Your task to perform on an android device: turn on priority inbox in the gmail app Image 0: 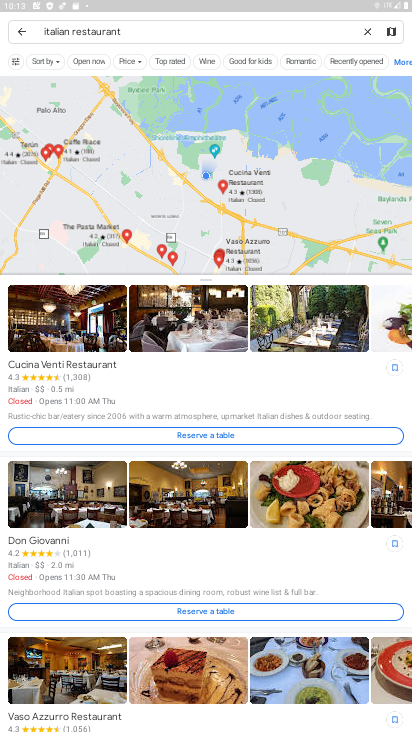
Step 0: press home button
Your task to perform on an android device: turn on priority inbox in the gmail app Image 1: 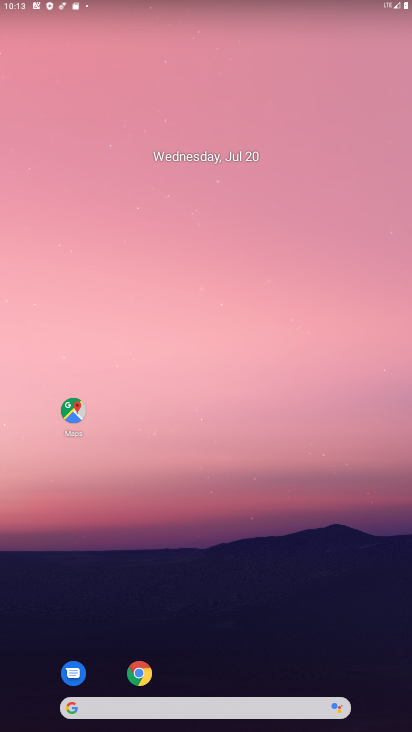
Step 1: drag from (216, 706) to (121, 354)
Your task to perform on an android device: turn on priority inbox in the gmail app Image 2: 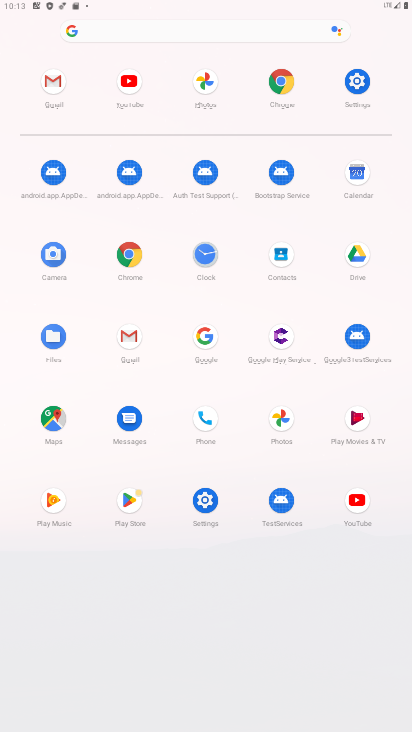
Step 2: click (132, 335)
Your task to perform on an android device: turn on priority inbox in the gmail app Image 3: 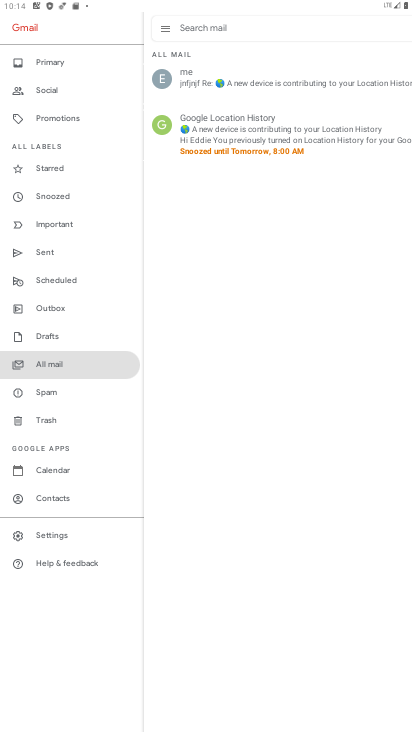
Step 3: click (52, 533)
Your task to perform on an android device: turn on priority inbox in the gmail app Image 4: 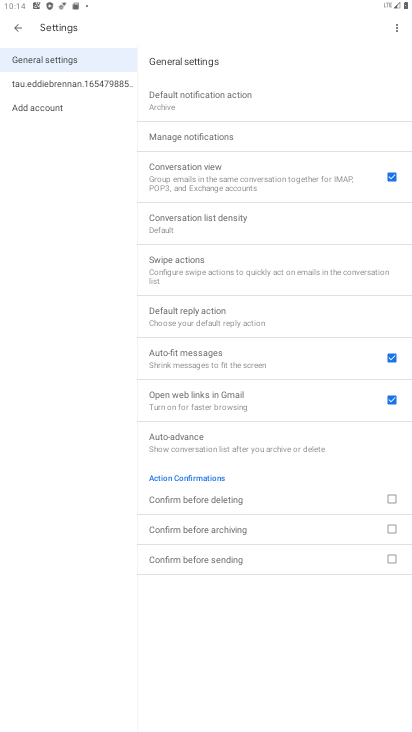
Step 4: click (95, 87)
Your task to perform on an android device: turn on priority inbox in the gmail app Image 5: 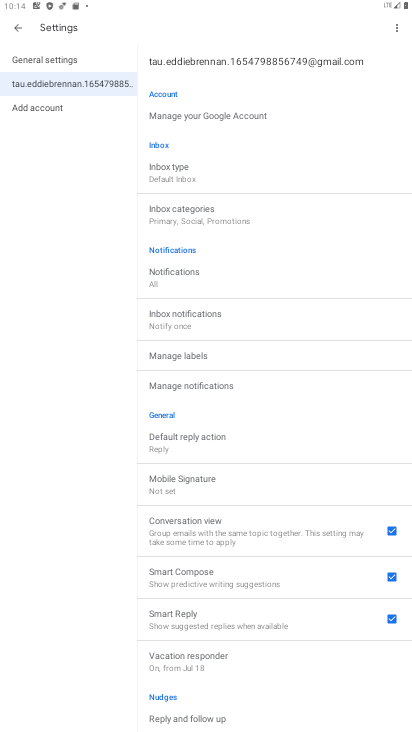
Step 5: click (175, 174)
Your task to perform on an android device: turn on priority inbox in the gmail app Image 6: 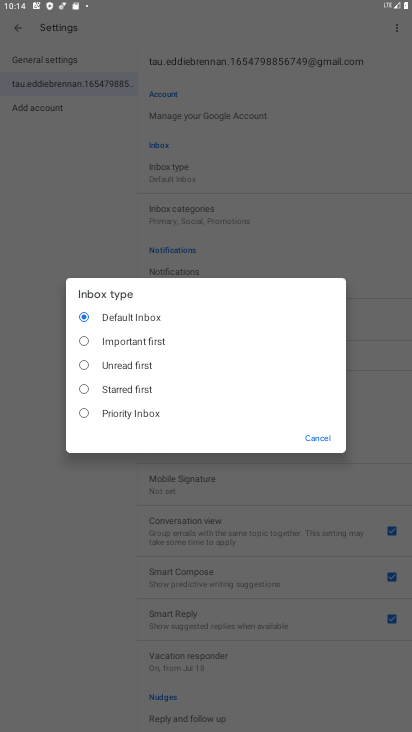
Step 6: click (84, 411)
Your task to perform on an android device: turn on priority inbox in the gmail app Image 7: 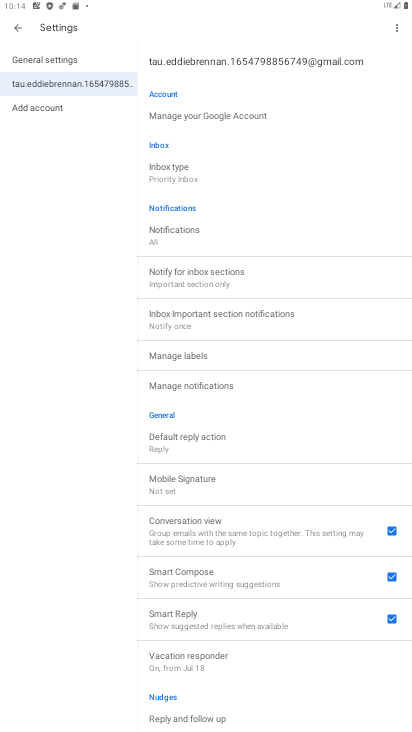
Step 7: task complete